Your task to perform on an android device: change keyboard looks Image 0: 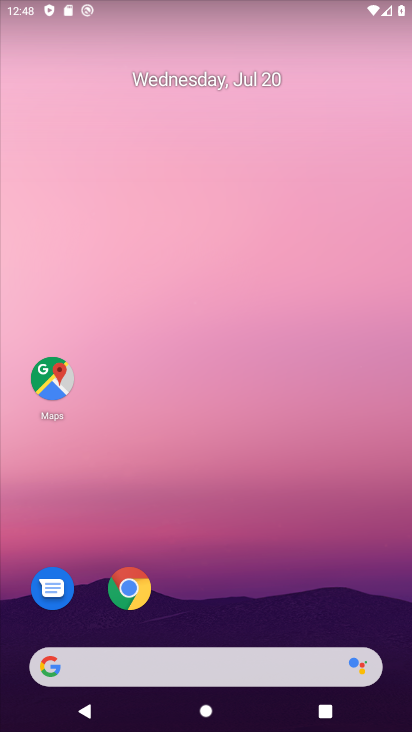
Step 0: press home button
Your task to perform on an android device: change keyboard looks Image 1: 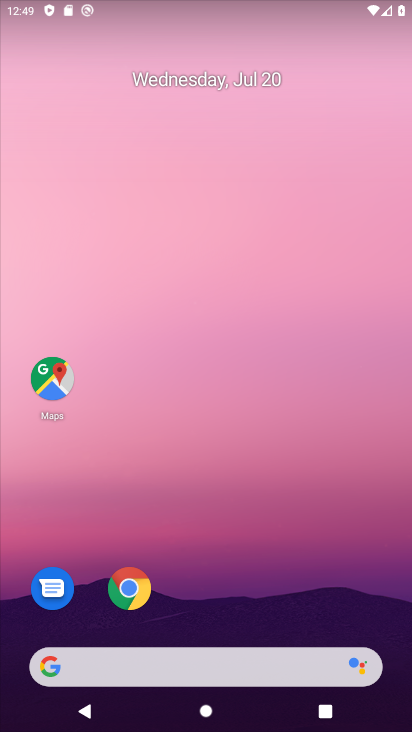
Step 1: drag from (54, 566) to (318, 33)
Your task to perform on an android device: change keyboard looks Image 2: 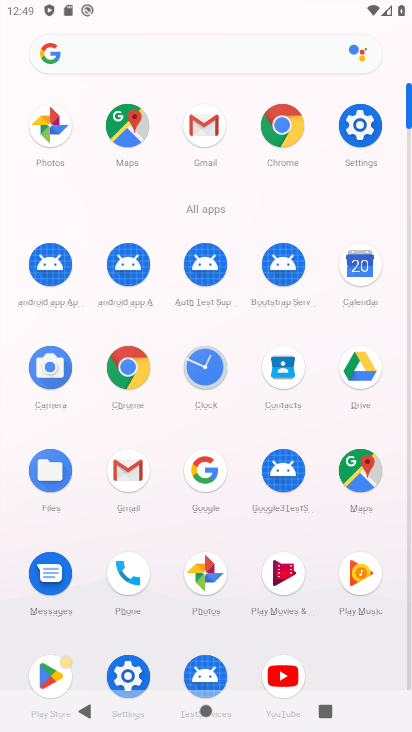
Step 2: click (374, 127)
Your task to perform on an android device: change keyboard looks Image 3: 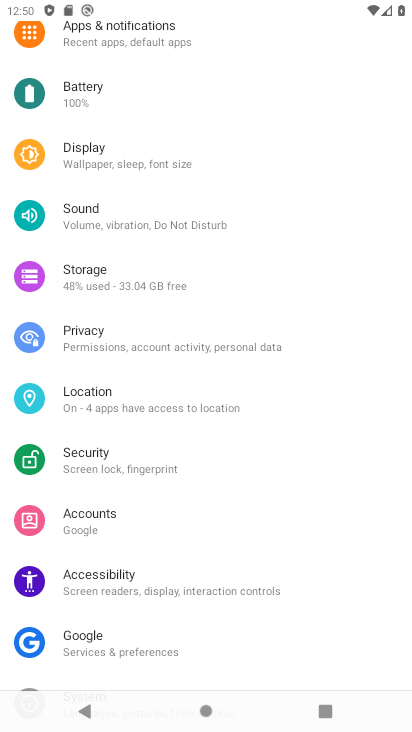
Step 3: drag from (146, 655) to (332, 195)
Your task to perform on an android device: change keyboard looks Image 4: 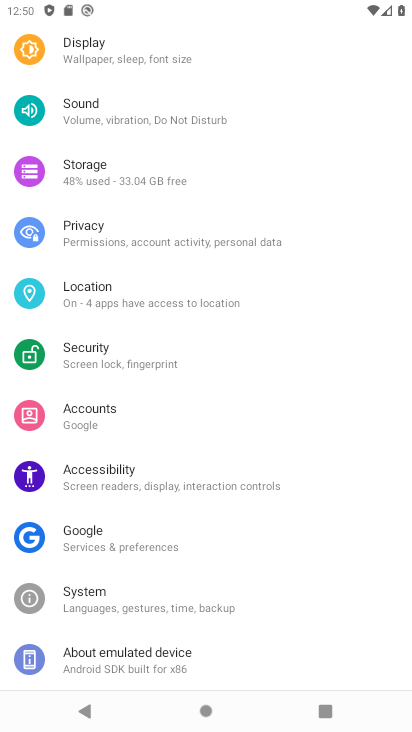
Step 4: click (140, 600)
Your task to perform on an android device: change keyboard looks Image 5: 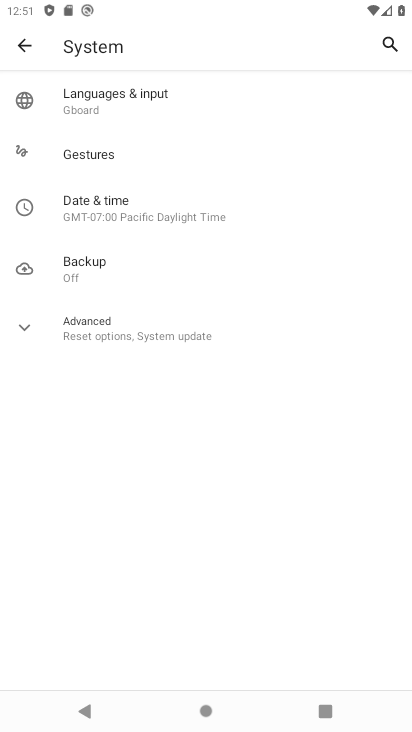
Step 5: click (144, 85)
Your task to perform on an android device: change keyboard looks Image 6: 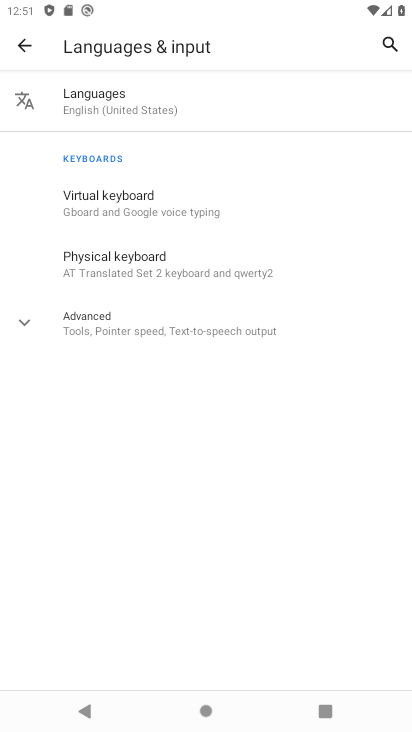
Step 6: click (137, 218)
Your task to perform on an android device: change keyboard looks Image 7: 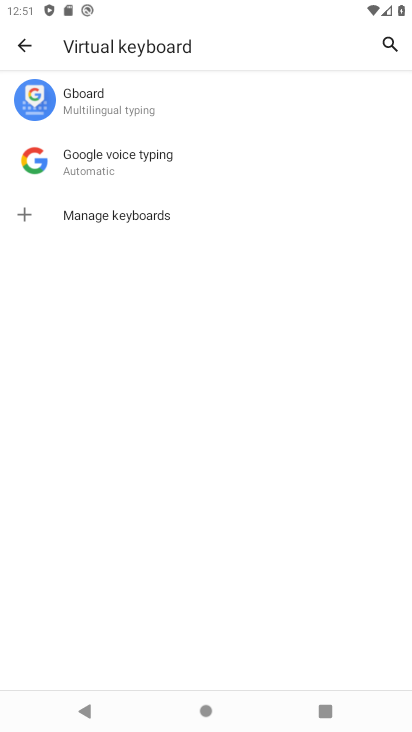
Step 7: click (81, 156)
Your task to perform on an android device: change keyboard looks Image 8: 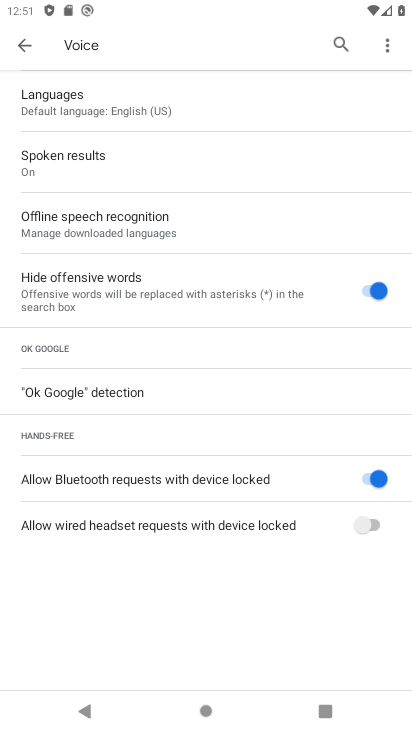
Step 8: task complete